Your task to perform on an android device: turn off smart reply in the gmail app Image 0: 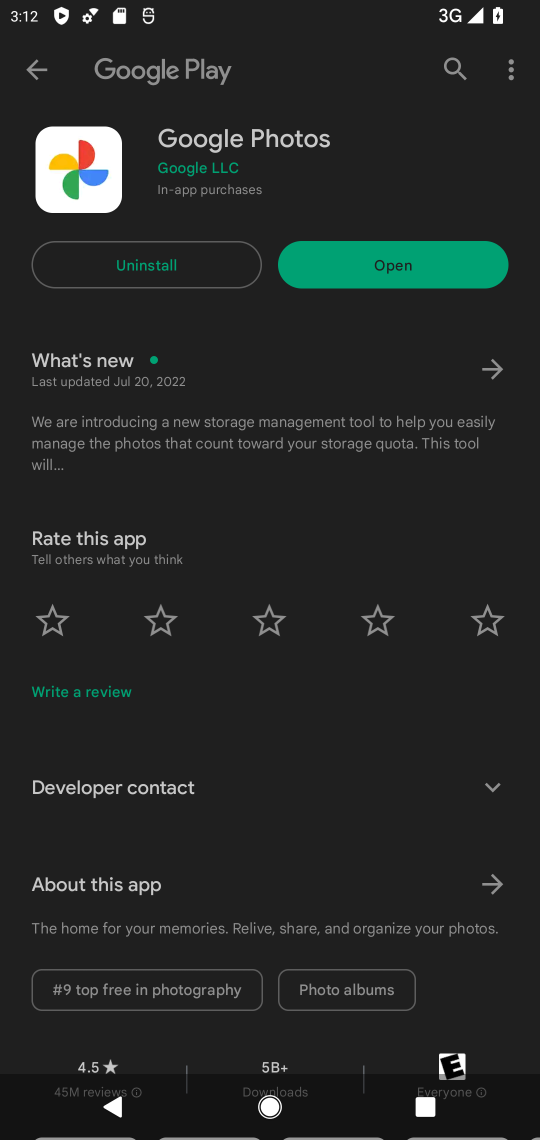
Step 0: press home button
Your task to perform on an android device: turn off smart reply in the gmail app Image 1: 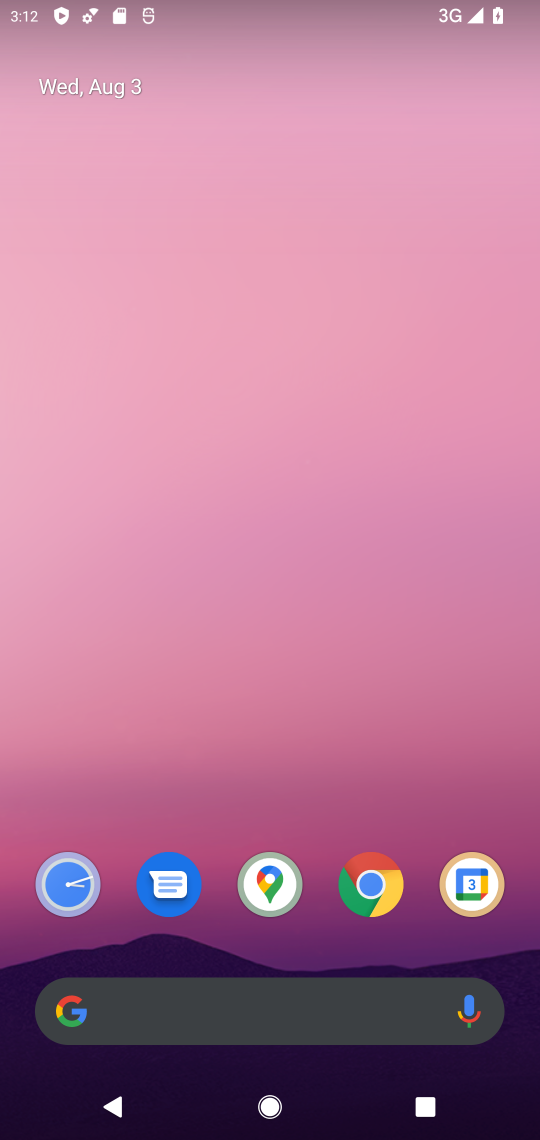
Step 1: drag from (224, 961) to (301, 241)
Your task to perform on an android device: turn off smart reply in the gmail app Image 2: 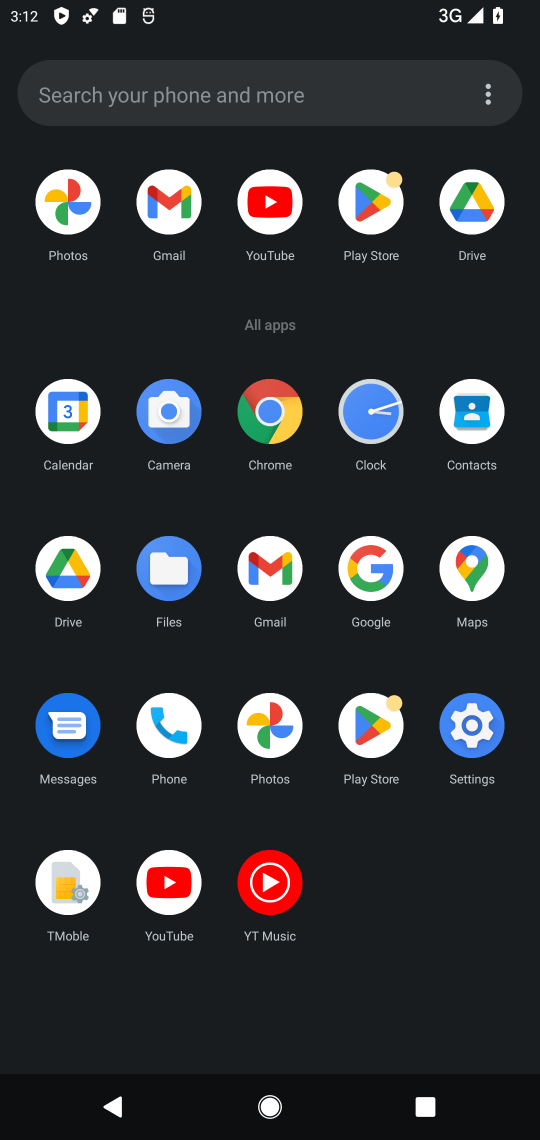
Step 2: click (276, 593)
Your task to perform on an android device: turn off smart reply in the gmail app Image 3: 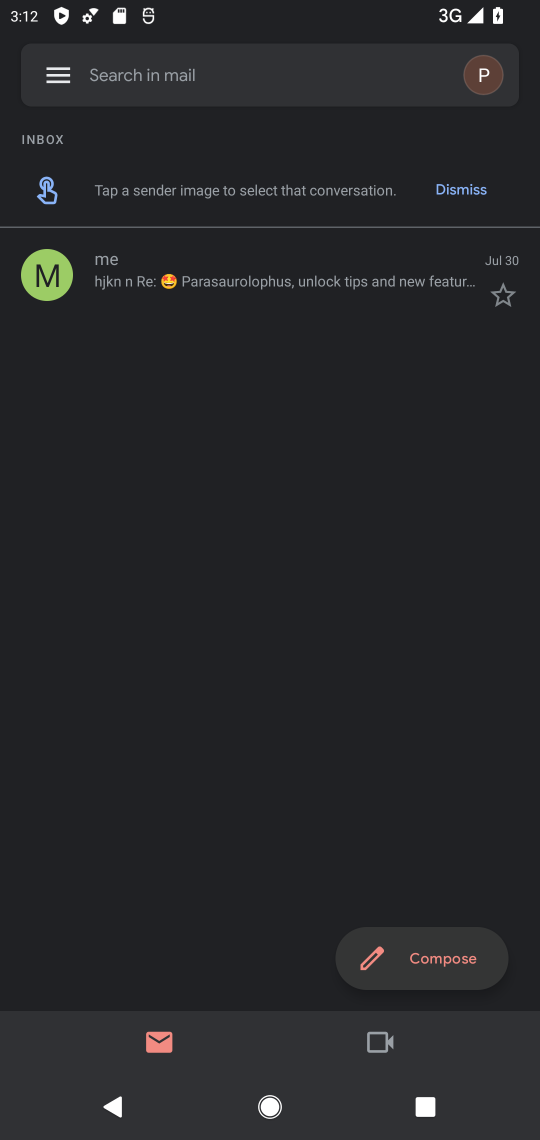
Step 3: click (63, 92)
Your task to perform on an android device: turn off smart reply in the gmail app Image 4: 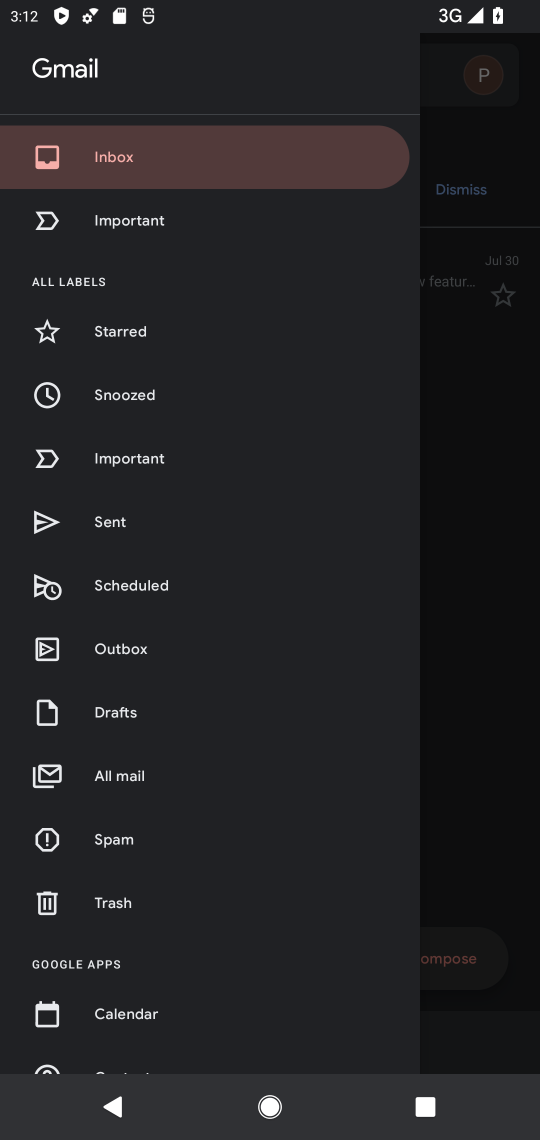
Step 4: drag from (127, 960) to (178, 402)
Your task to perform on an android device: turn off smart reply in the gmail app Image 5: 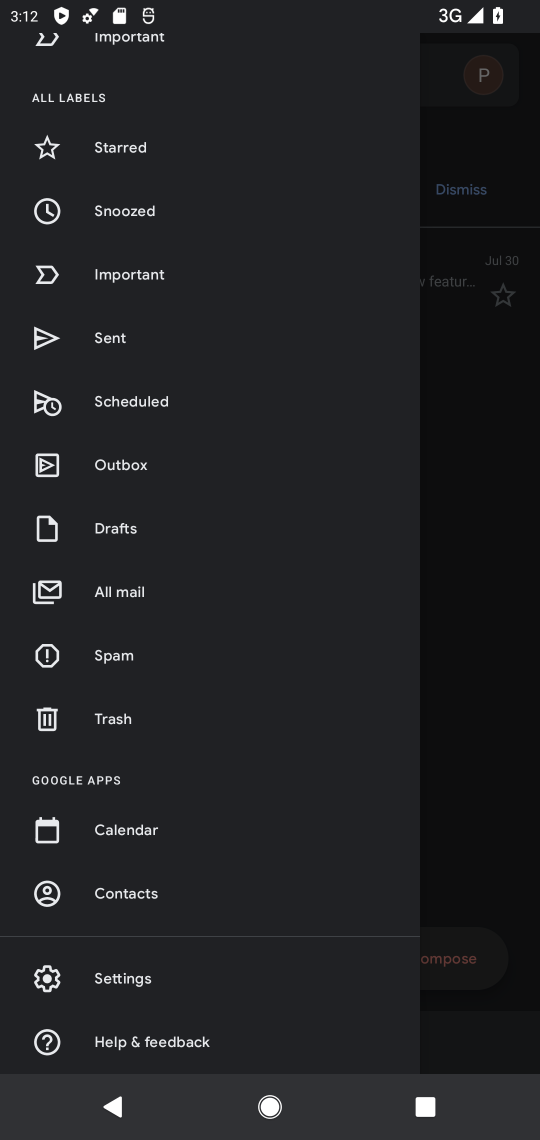
Step 5: click (151, 968)
Your task to perform on an android device: turn off smart reply in the gmail app Image 6: 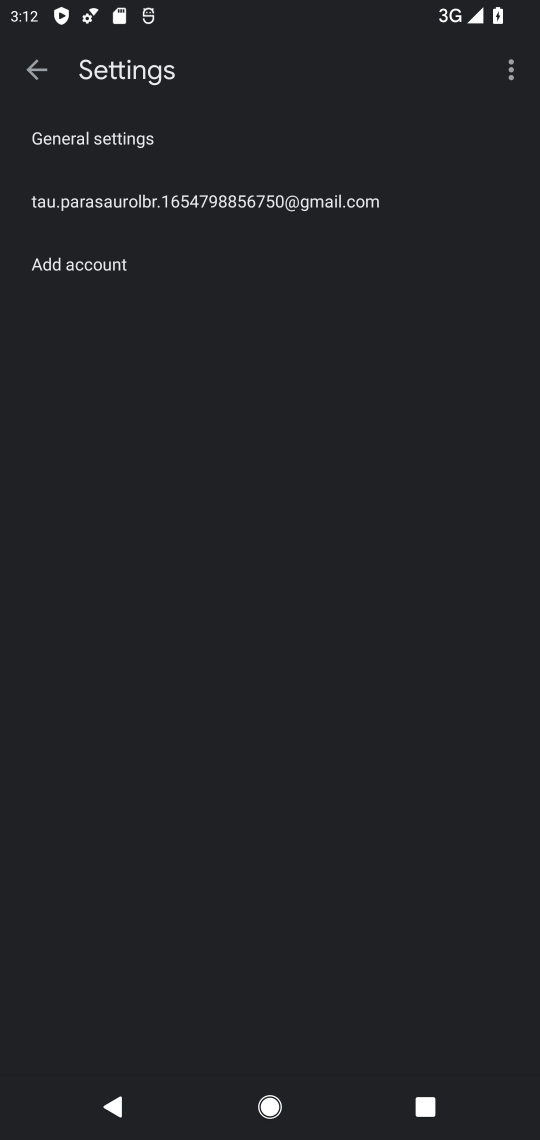
Step 6: click (146, 222)
Your task to perform on an android device: turn off smart reply in the gmail app Image 7: 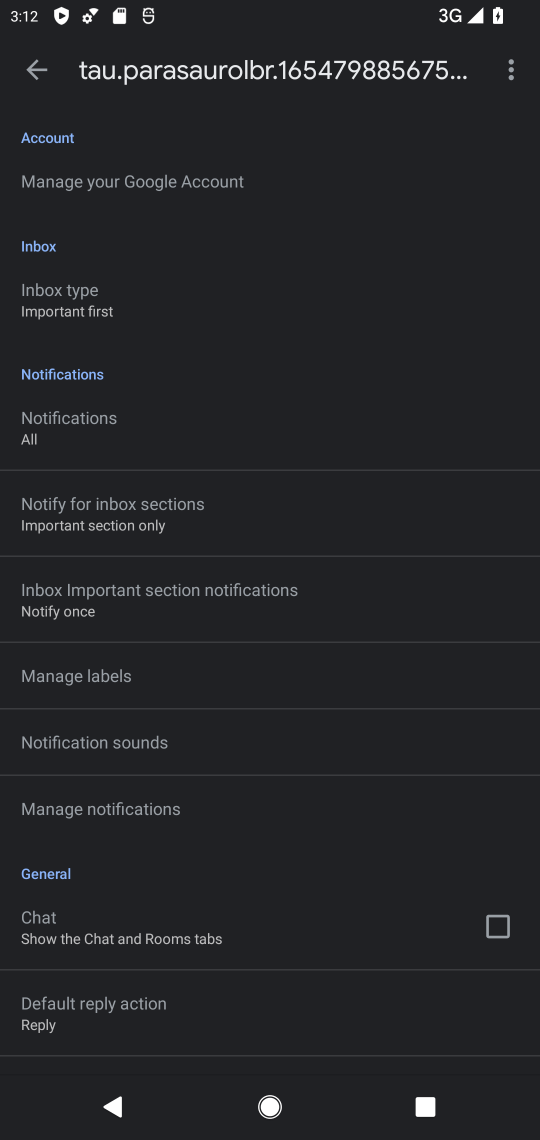
Step 7: task complete